Your task to perform on an android device: delete a single message in the gmail app Image 0: 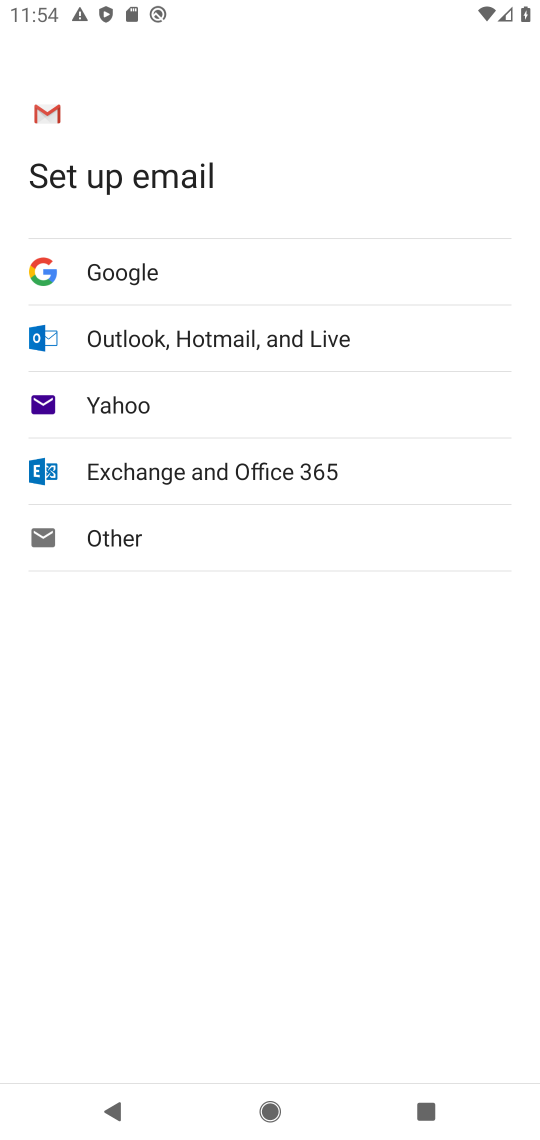
Step 0: press home button
Your task to perform on an android device: delete a single message in the gmail app Image 1: 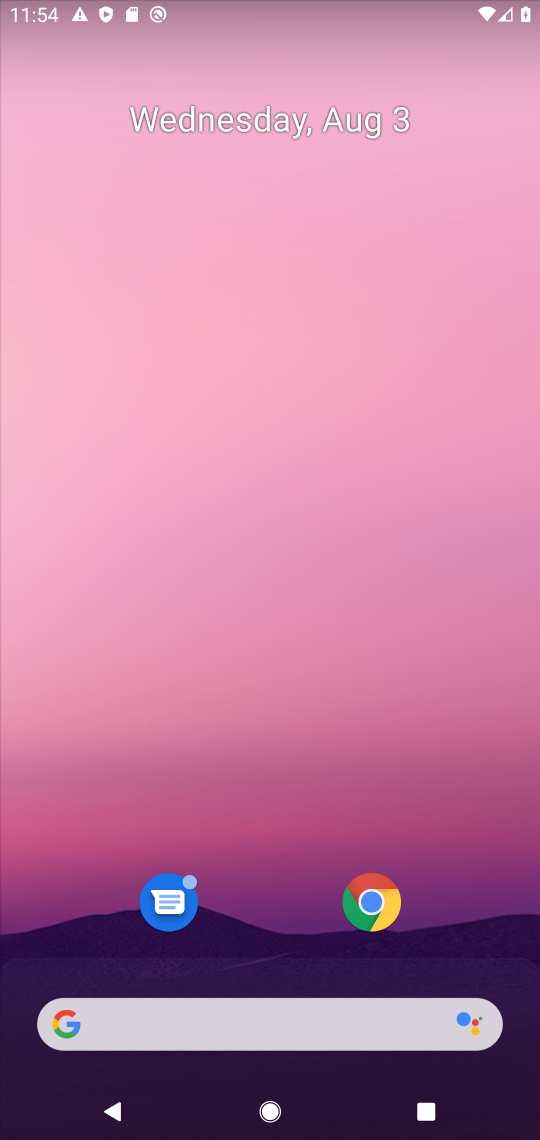
Step 1: drag from (480, 889) to (486, 189)
Your task to perform on an android device: delete a single message in the gmail app Image 2: 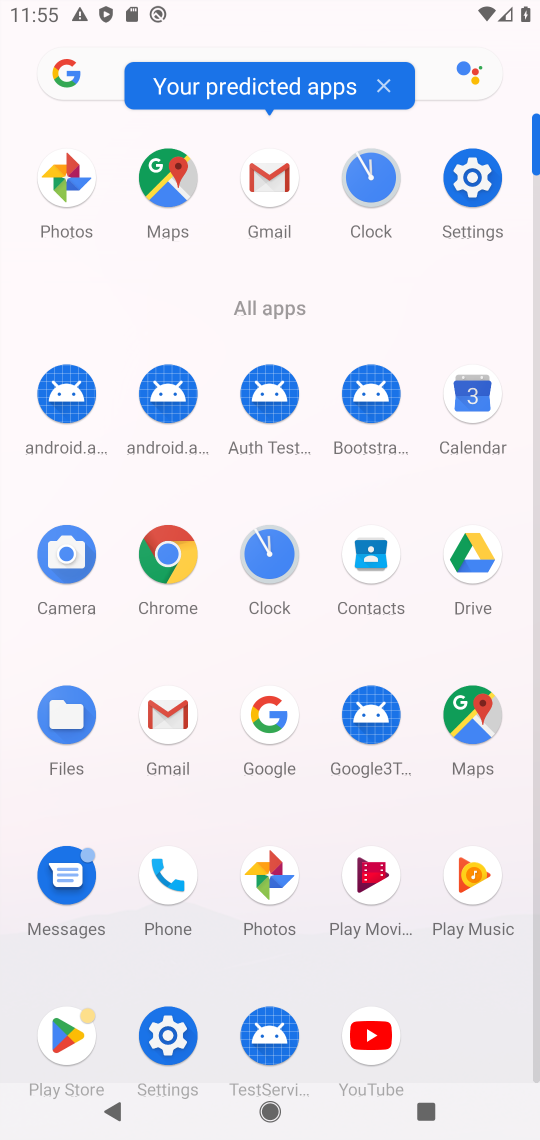
Step 2: click (170, 718)
Your task to perform on an android device: delete a single message in the gmail app Image 3: 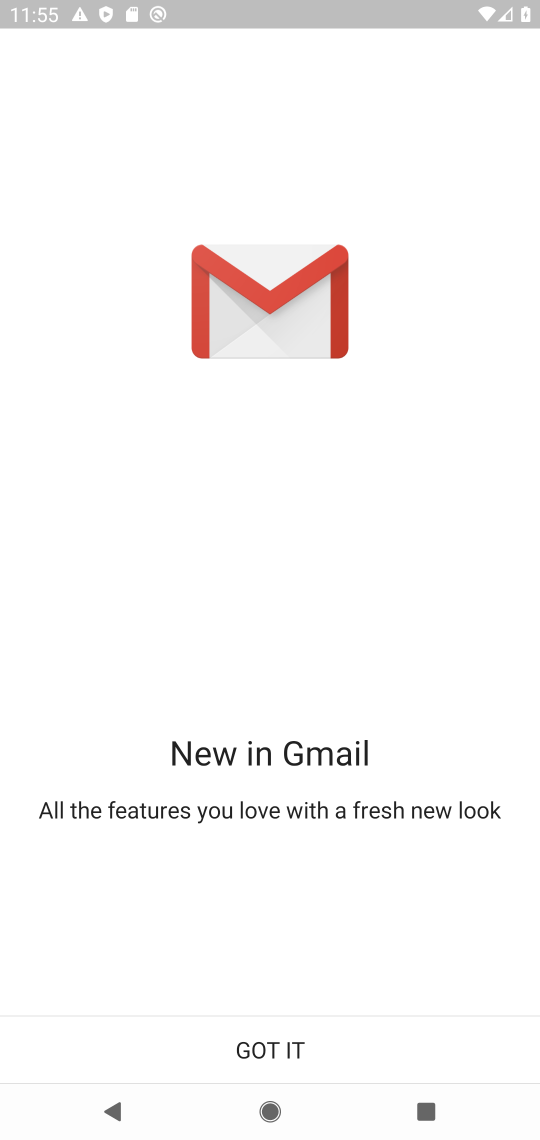
Step 3: click (268, 1045)
Your task to perform on an android device: delete a single message in the gmail app Image 4: 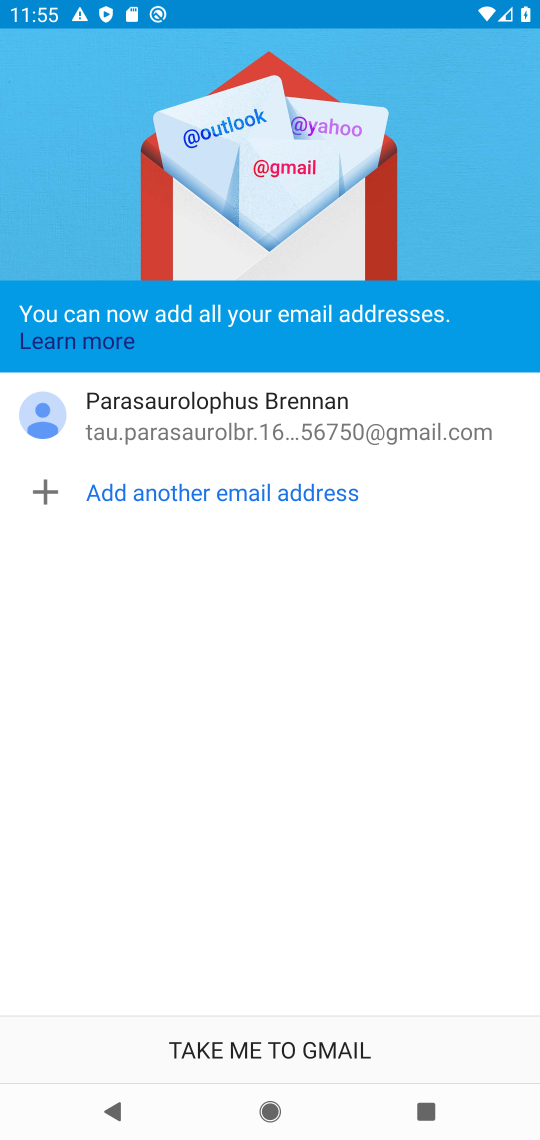
Step 4: click (274, 1041)
Your task to perform on an android device: delete a single message in the gmail app Image 5: 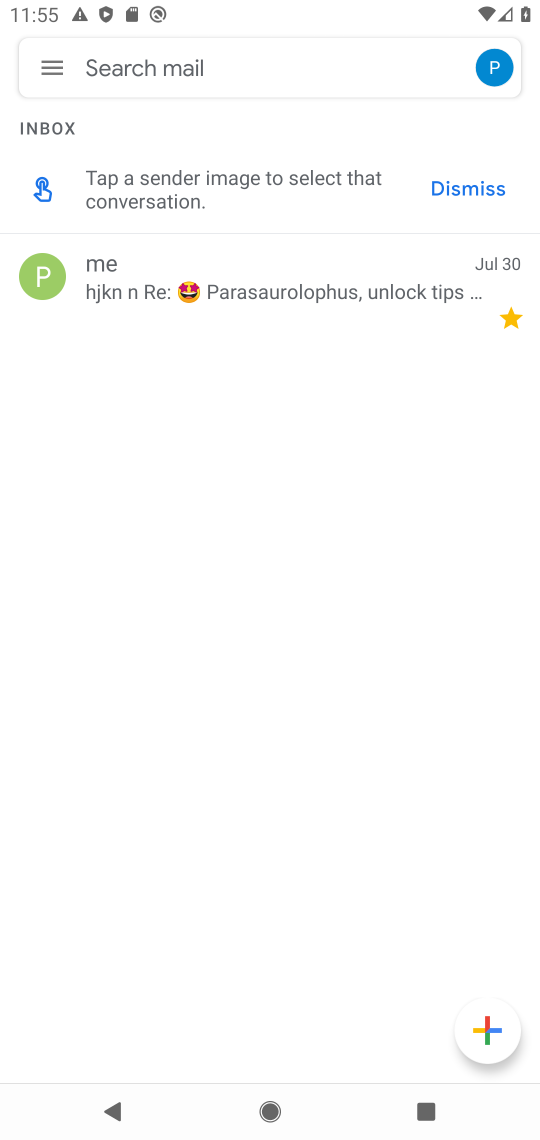
Step 5: click (240, 291)
Your task to perform on an android device: delete a single message in the gmail app Image 6: 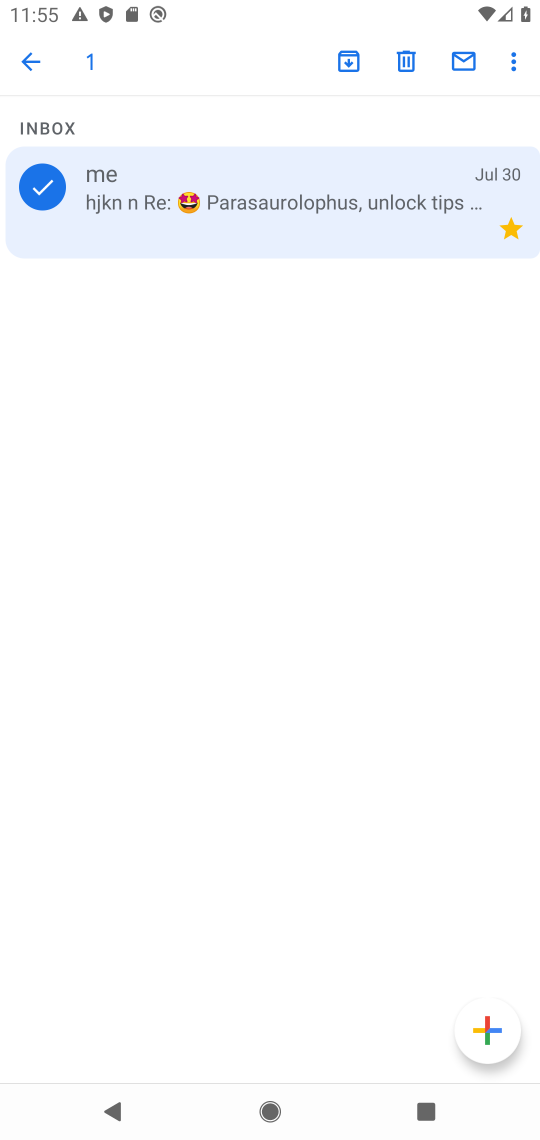
Step 6: click (407, 58)
Your task to perform on an android device: delete a single message in the gmail app Image 7: 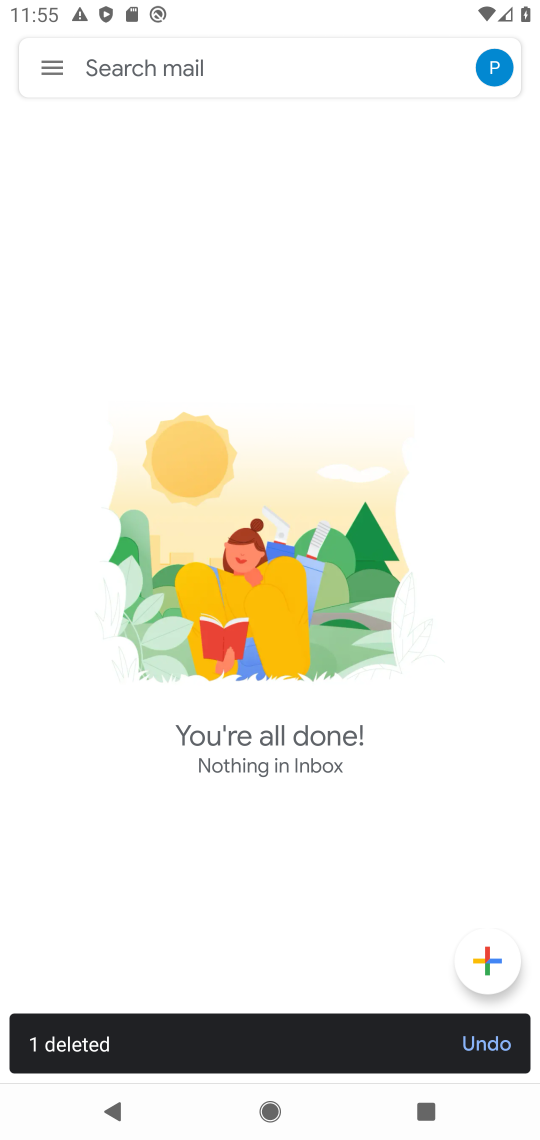
Step 7: task complete